Your task to perform on an android device: Go to settings Image 0: 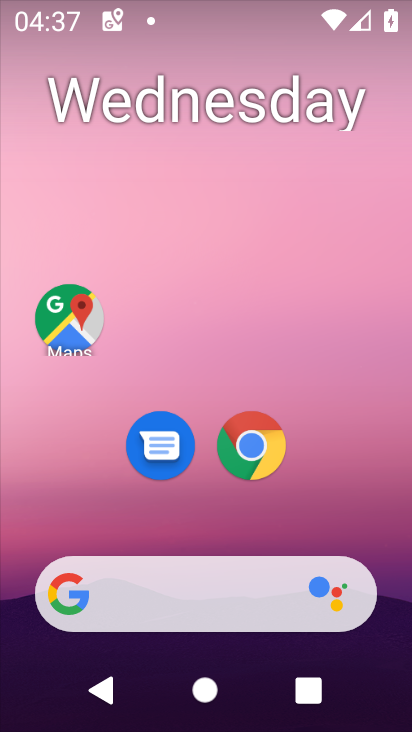
Step 0: drag from (185, 534) to (47, 17)
Your task to perform on an android device: Go to settings Image 1: 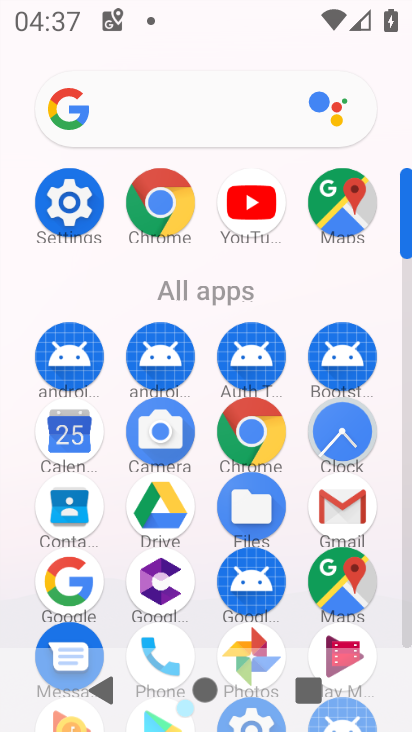
Step 1: click (60, 183)
Your task to perform on an android device: Go to settings Image 2: 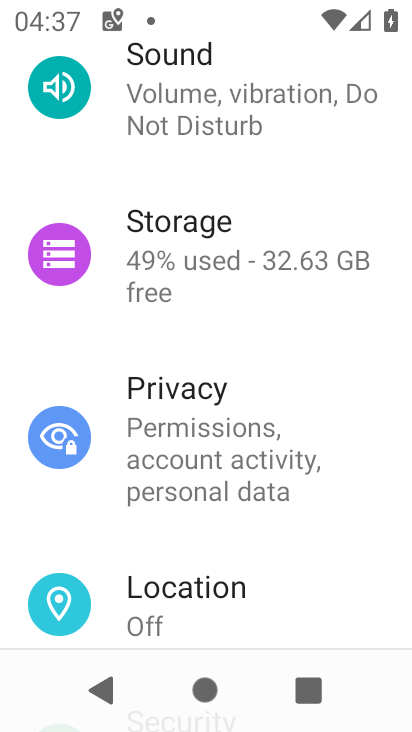
Step 2: task complete